Your task to perform on an android device: Show me recent news Image 0: 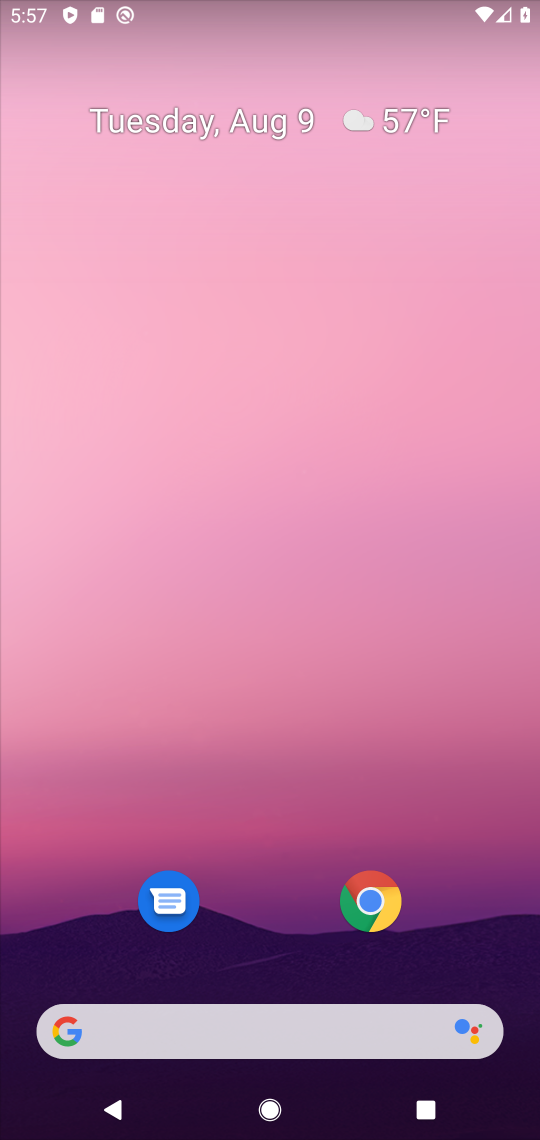
Step 0: click (318, 1026)
Your task to perform on an android device: Show me recent news Image 1: 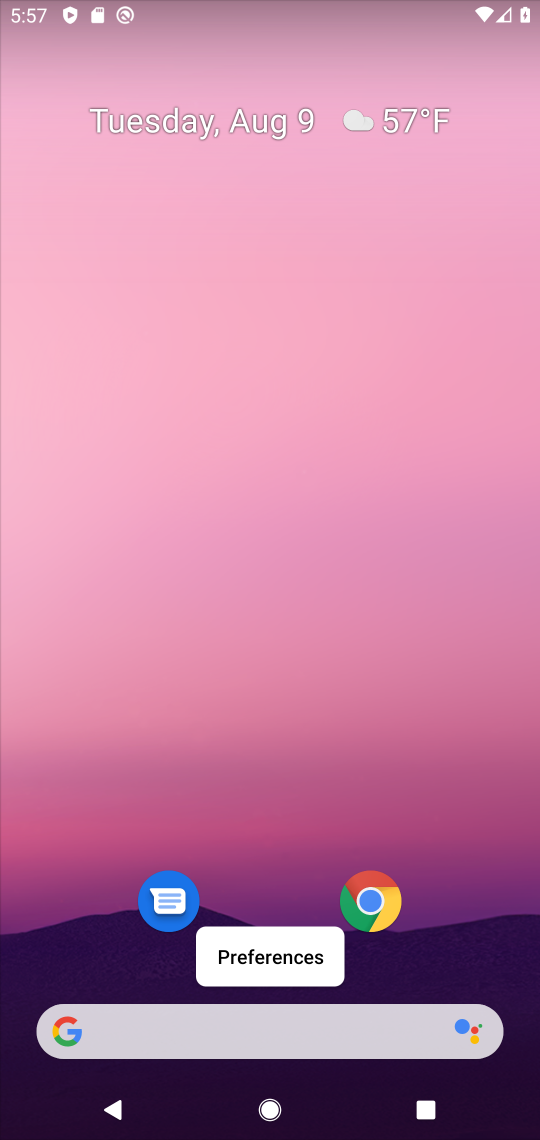
Step 1: click (318, 1026)
Your task to perform on an android device: Show me recent news Image 2: 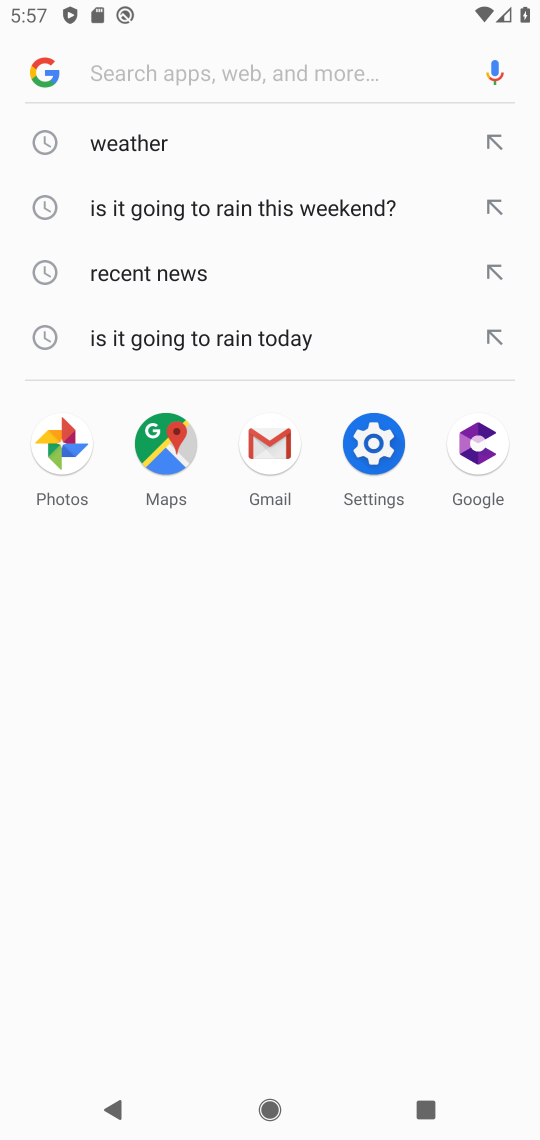
Step 2: click (169, 1042)
Your task to perform on an android device: Show me recent news Image 3: 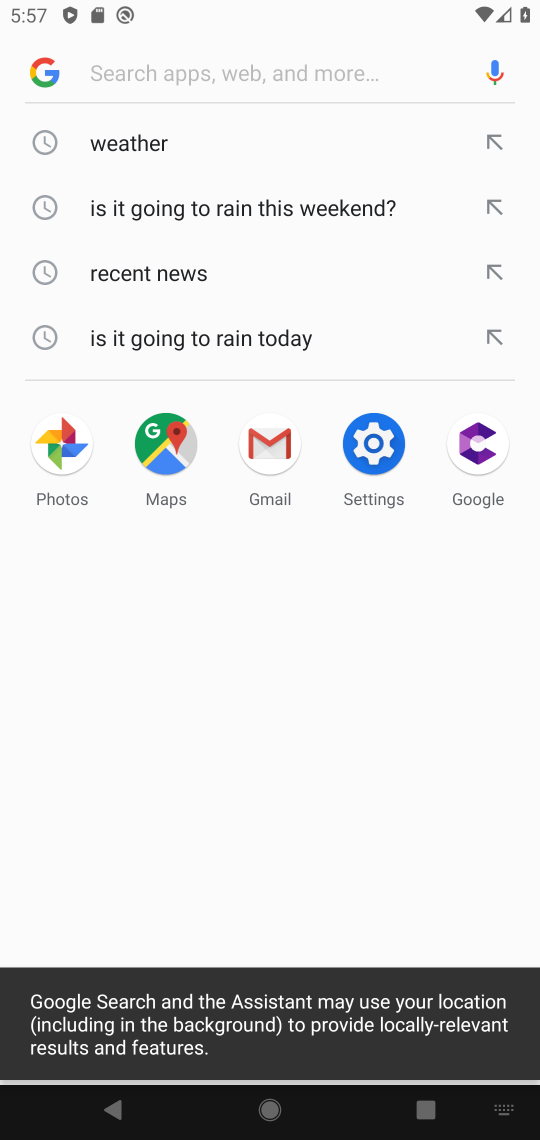
Step 3: click (267, 282)
Your task to perform on an android device: Show me recent news Image 4: 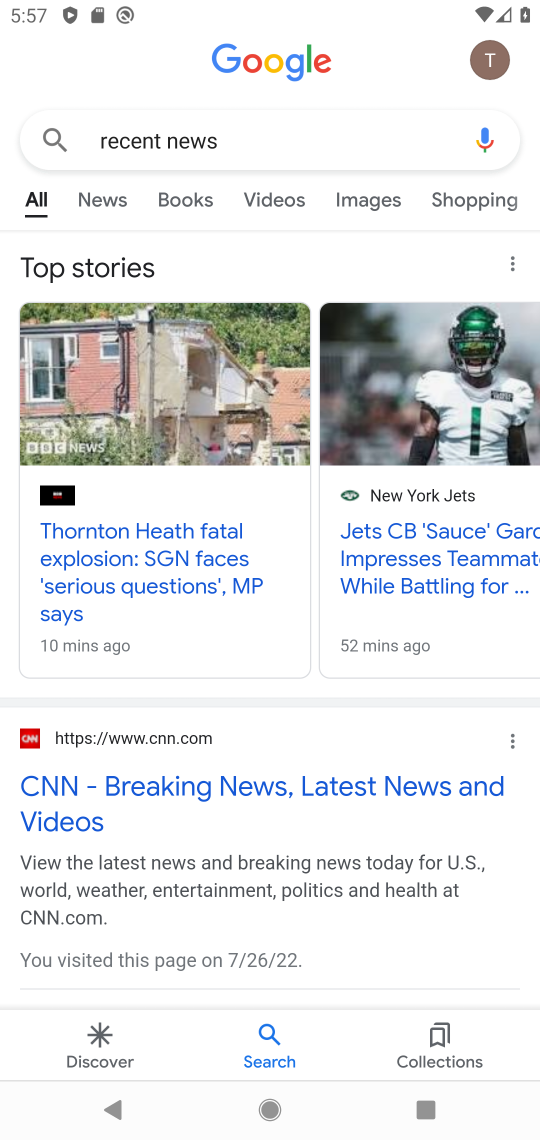
Step 4: task complete